Your task to perform on an android device: Search for usb-c to usb-b on walmart, select the first entry, and add it to the cart. Image 0: 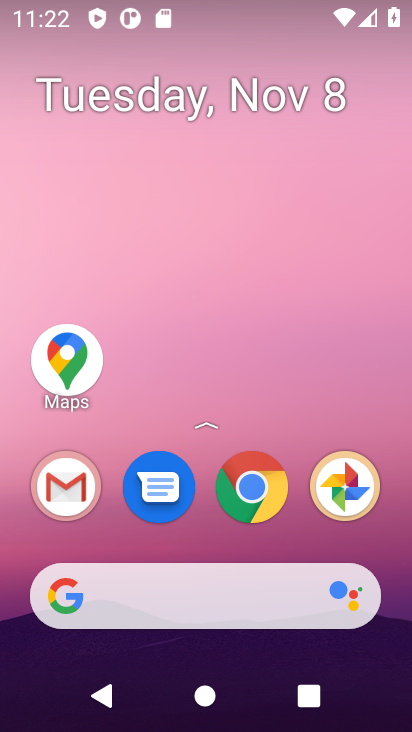
Step 0: click (222, 575)
Your task to perform on an android device: Search for usb-c to usb-b on walmart, select the first entry, and add it to the cart. Image 1: 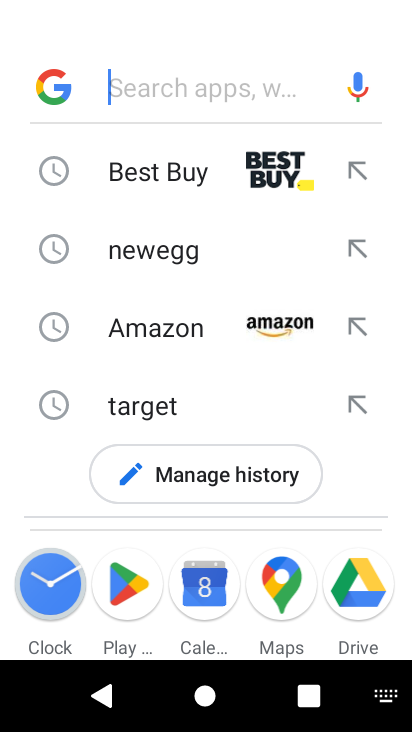
Step 1: type "walmart"
Your task to perform on an android device: Search for usb-c to usb-b on walmart, select the first entry, and add it to the cart. Image 2: 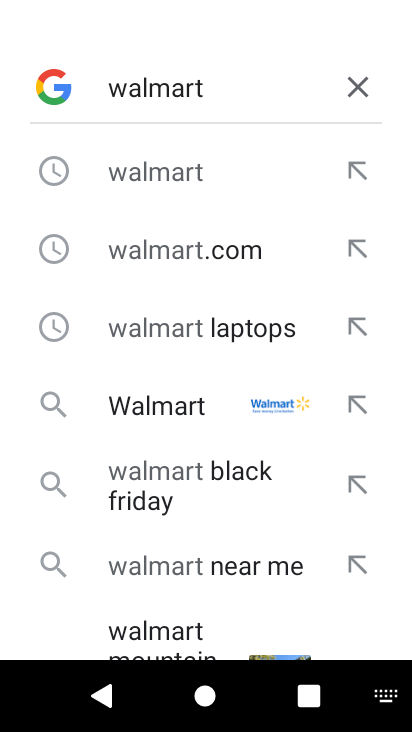
Step 2: click (229, 400)
Your task to perform on an android device: Search for usb-c to usb-b on walmart, select the first entry, and add it to the cart. Image 3: 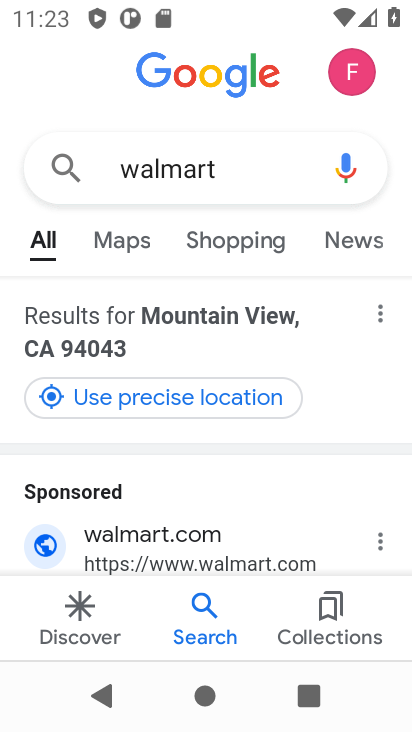
Step 3: drag from (167, 436) to (284, 150)
Your task to perform on an android device: Search for usb-c to usb-b on walmart, select the first entry, and add it to the cart. Image 4: 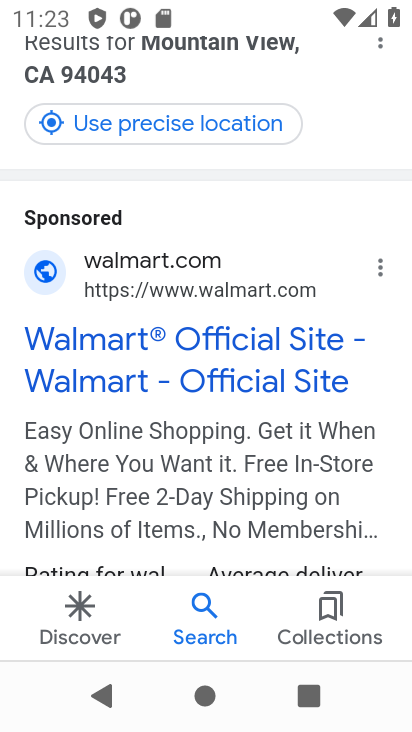
Step 4: click (151, 347)
Your task to perform on an android device: Search for usb-c to usb-b on walmart, select the first entry, and add it to the cart. Image 5: 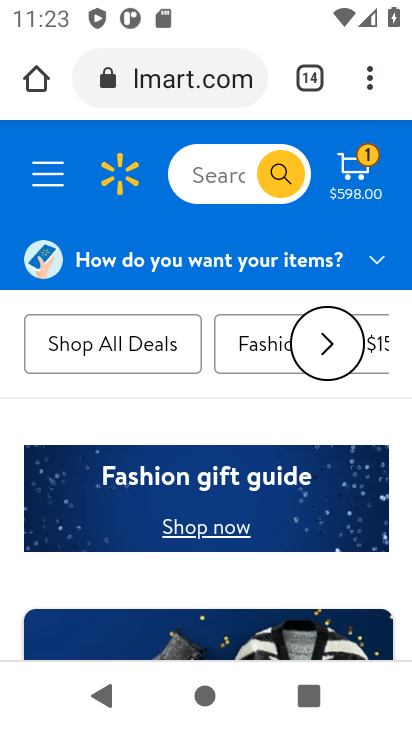
Step 5: click (236, 170)
Your task to perform on an android device: Search for usb-c to usb-b on walmart, select the first entry, and add it to the cart. Image 6: 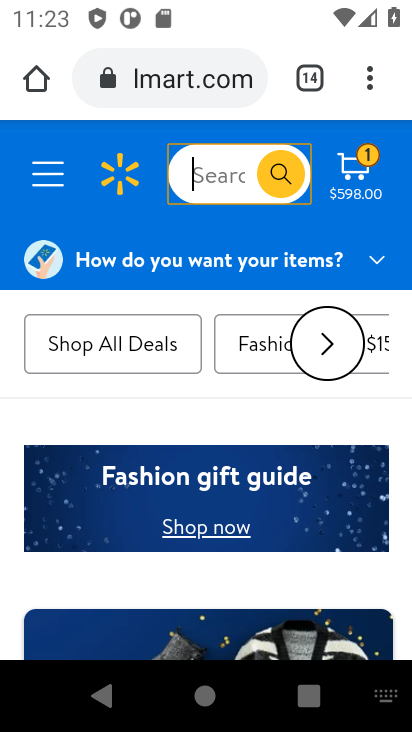
Step 6: type "usb-c to usb-b"
Your task to perform on an android device: Search for usb-c to usb-b on walmart, select the first entry, and add it to the cart. Image 7: 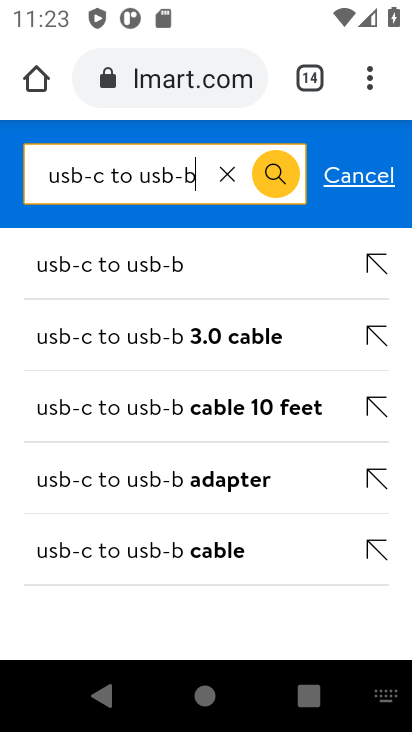
Step 7: click (90, 277)
Your task to perform on an android device: Search for usb-c to usb-b on walmart, select the first entry, and add it to the cart. Image 8: 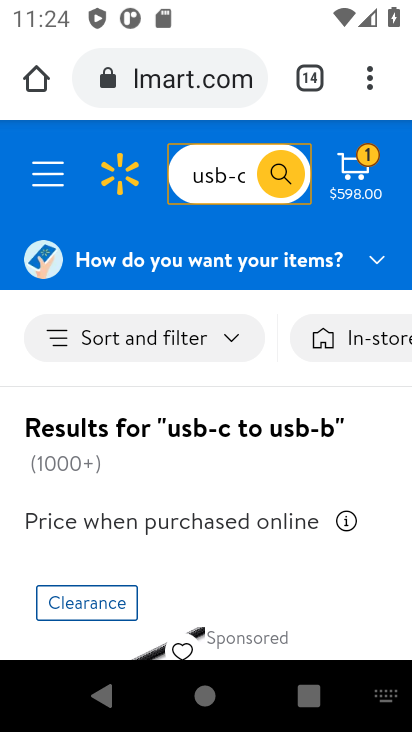
Step 8: drag from (196, 566) to (226, 164)
Your task to perform on an android device: Search for usb-c to usb-b on walmart, select the first entry, and add it to the cart. Image 9: 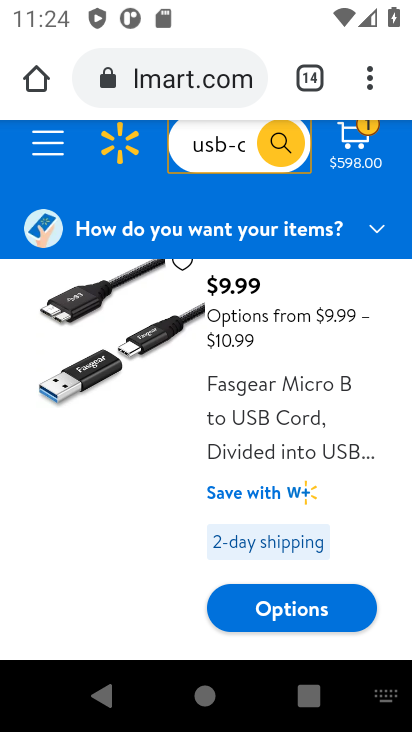
Step 9: click (291, 598)
Your task to perform on an android device: Search for usb-c to usb-b on walmart, select the first entry, and add it to the cart. Image 10: 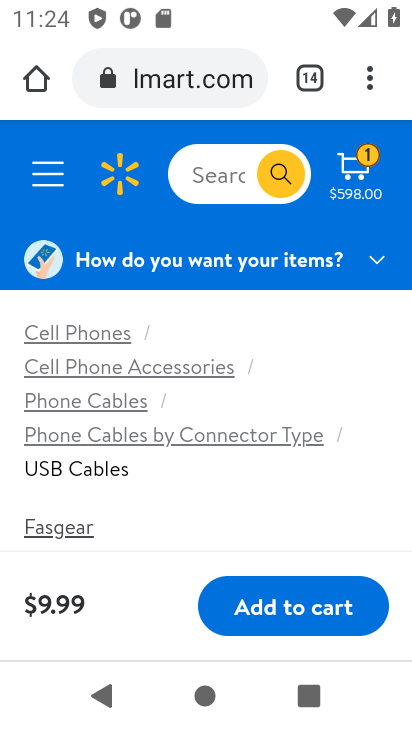
Step 10: click (282, 598)
Your task to perform on an android device: Search for usb-c to usb-b on walmart, select the first entry, and add it to the cart. Image 11: 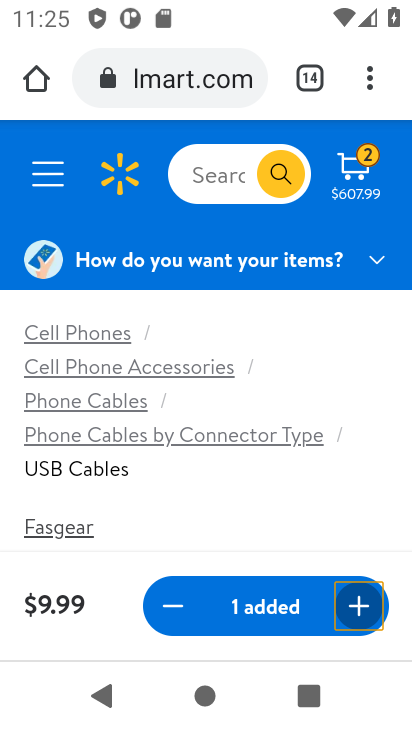
Step 11: task complete